Your task to perform on an android device: Search for sushi restaurants on Maps Image 0: 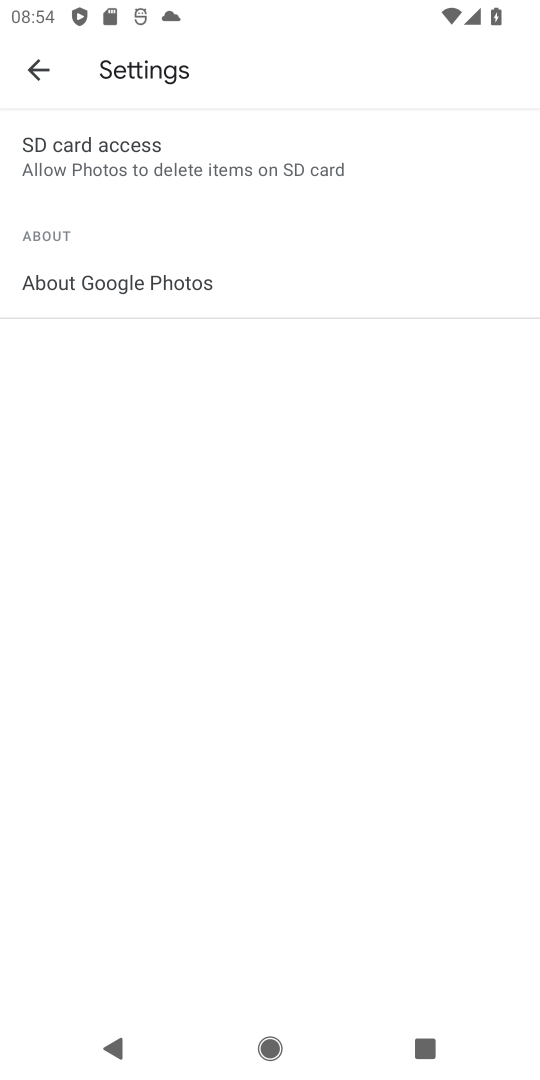
Step 0: press home button
Your task to perform on an android device: Search for sushi restaurants on Maps Image 1: 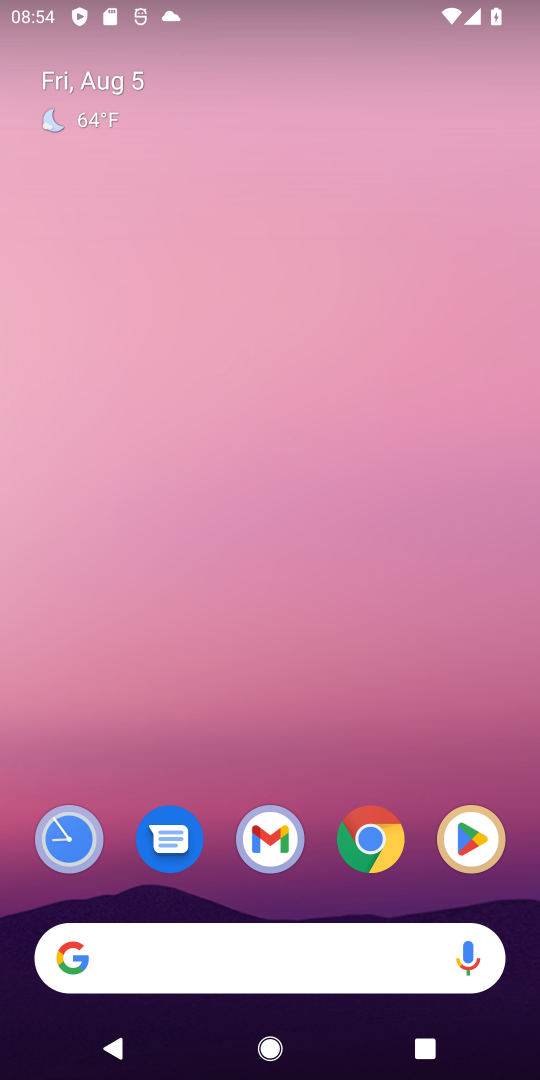
Step 1: drag from (325, 903) to (315, 202)
Your task to perform on an android device: Search for sushi restaurants on Maps Image 2: 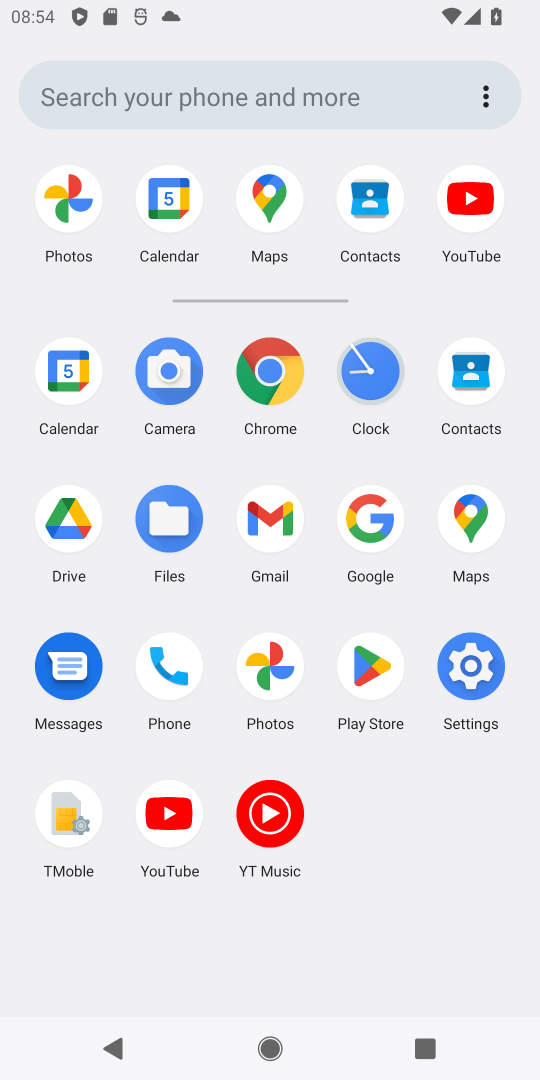
Step 2: click (458, 525)
Your task to perform on an android device: Search for sushi restaurants on Maps Image 3: 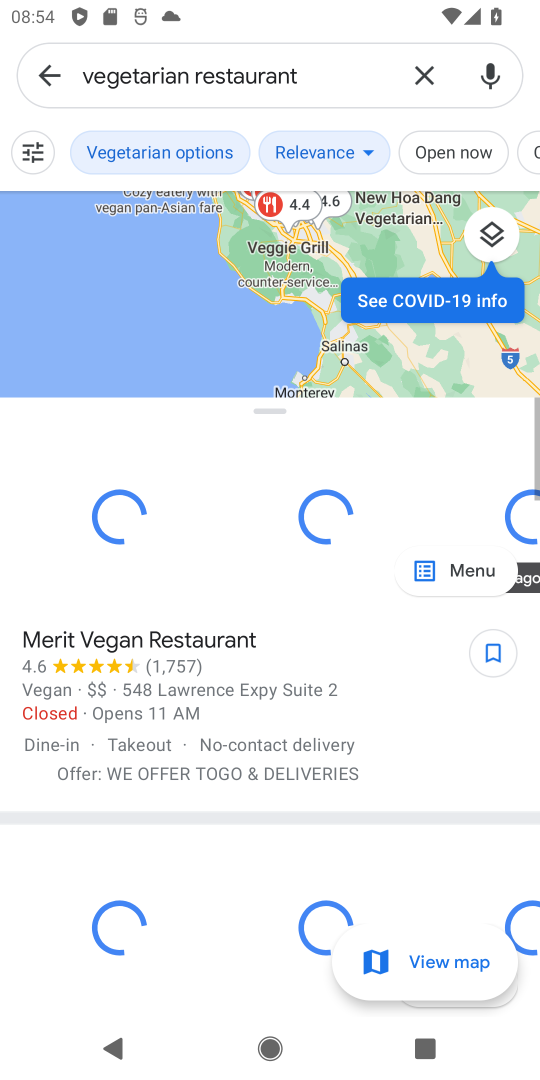
Step 3: click (422, 71)
Your task to perform on an android device: Search for sushi restaurants on Maps Image 4: 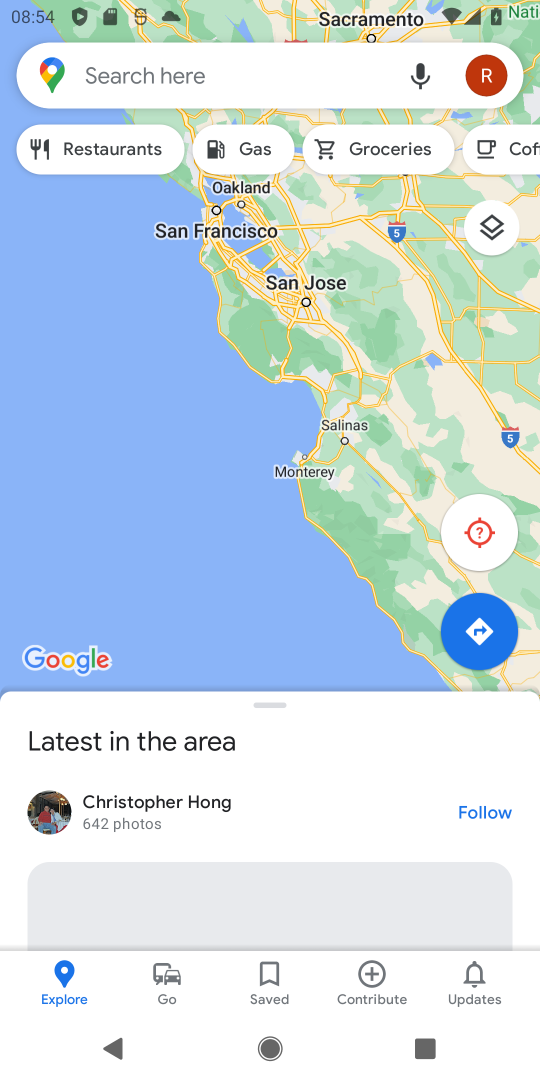
Step 4: click (345, 78)
Your task to perform on an android device: Search for sushi restaurants on Maps Image 5: 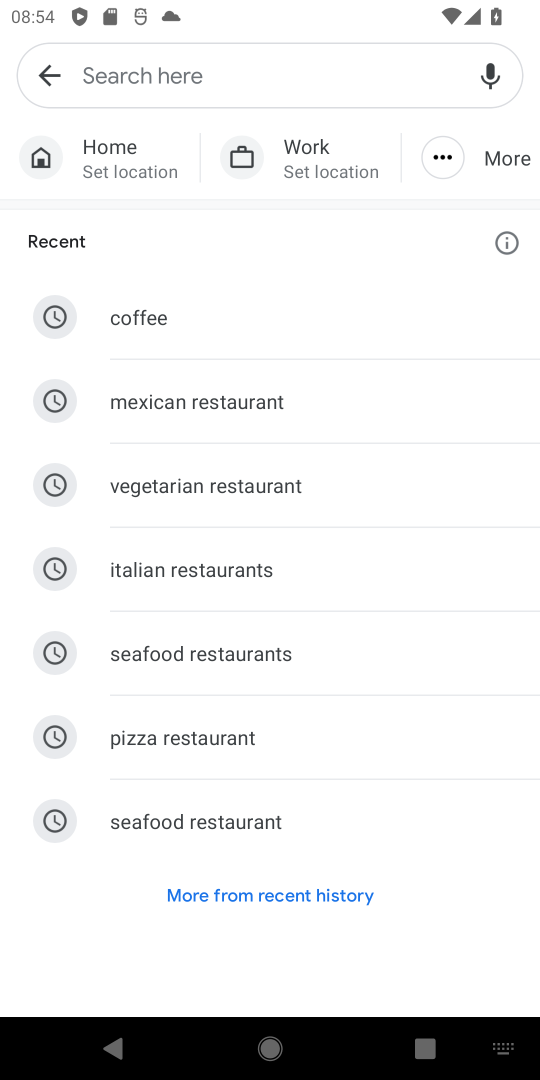
Step 5: type "sushi restaurants"
Your task to perform on an android device: Search for sushi restaurants on Maps Image 6: 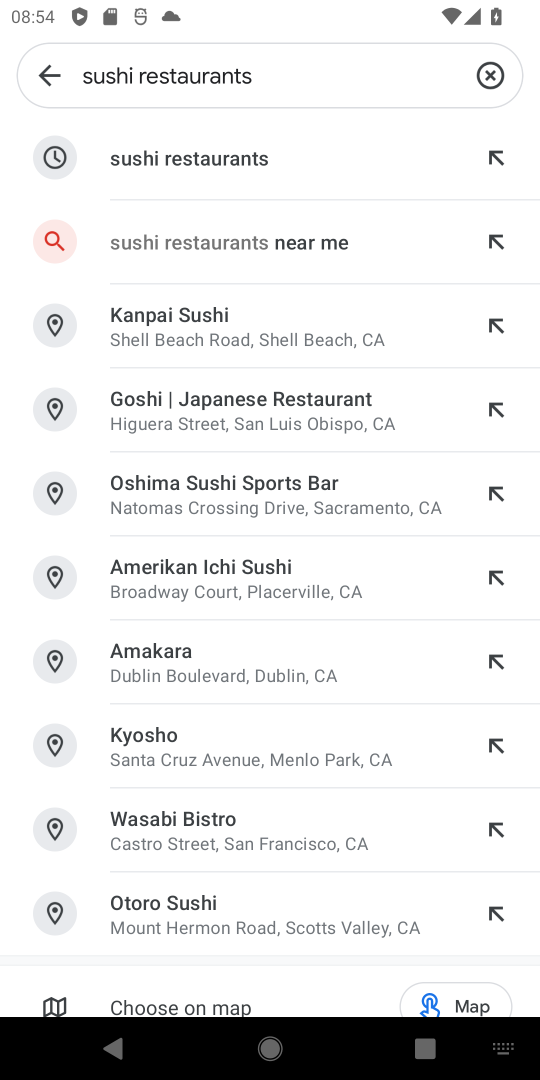
Step 6: click (193, 153)
Your task to perform on an android device: Search for sushi restaurants on Maps Image 7: 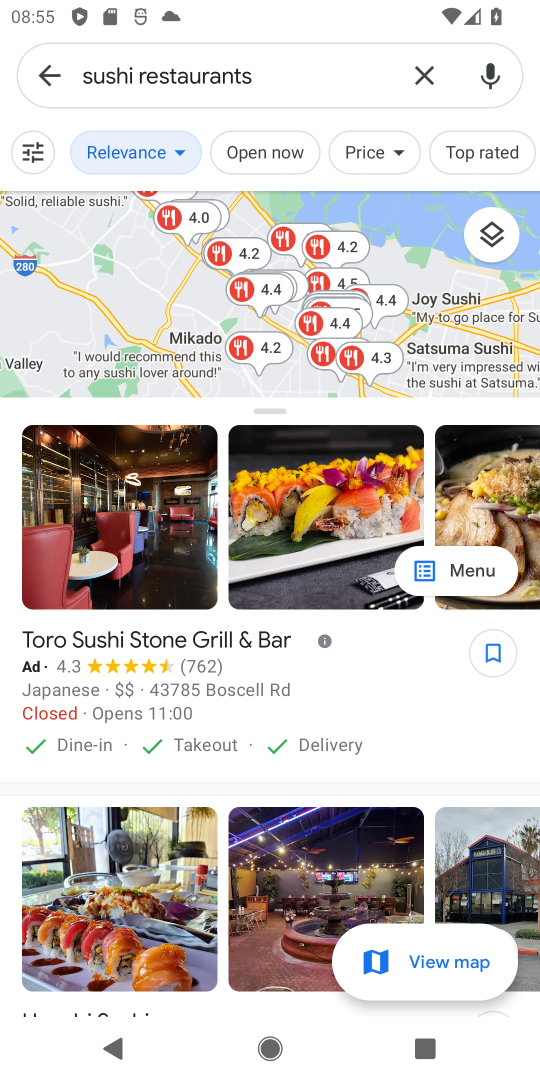
Step 7: task complete